Your task to perform on an android device: Check the weather Image 0: 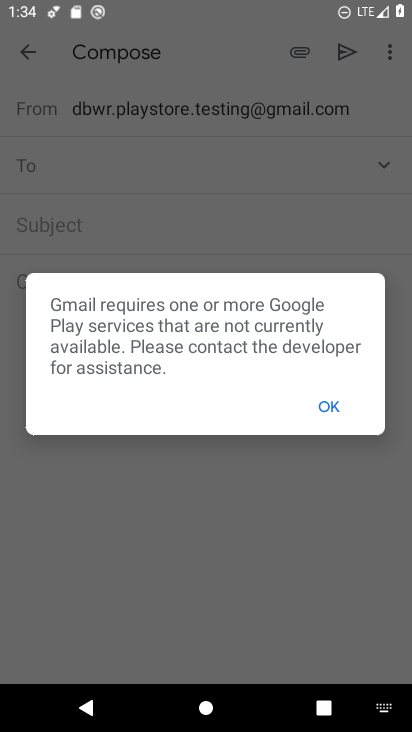
Step 0: press home button
Your task to perform on an android device: Check the weather Image 1: 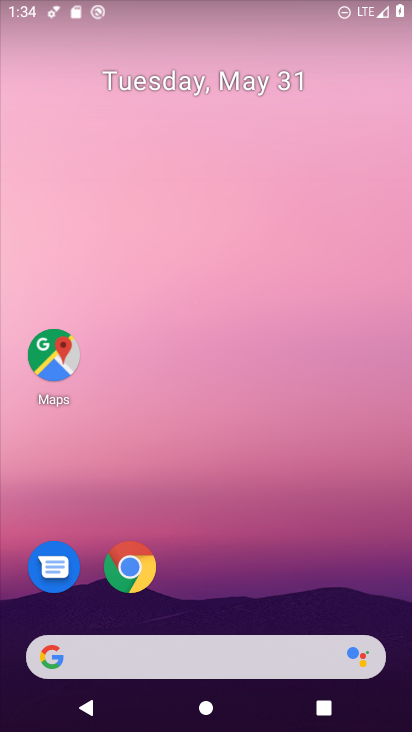
Step 1: drag from (206, 608) to (206, 185)
Your task to perform on an android device: Check the weather Image 2: 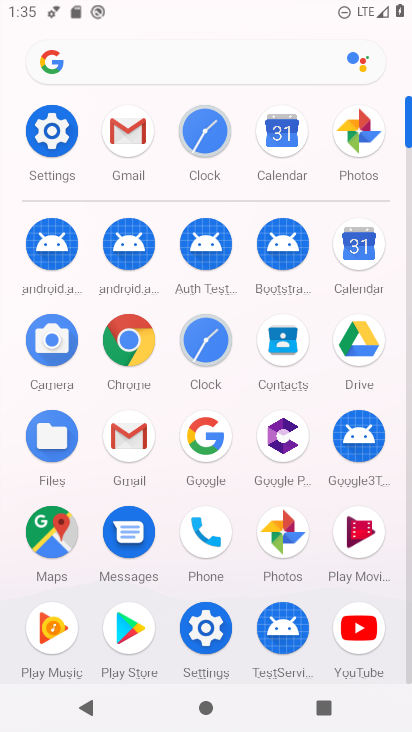
Step 2: click (196, 424)
Your task to perform on an android device: Check the weather Image 3: 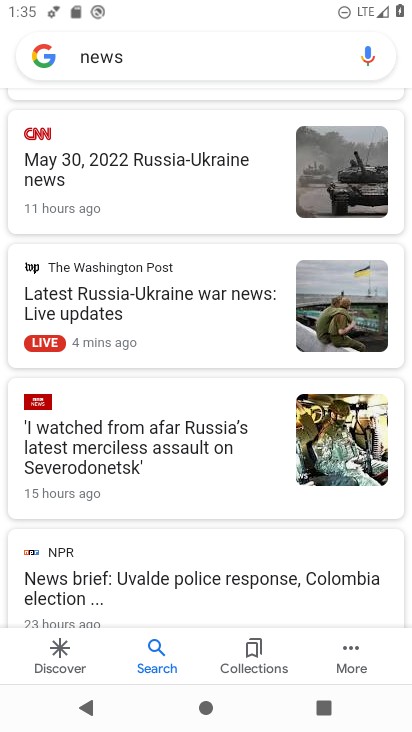
Step 3: click (166, 59)
Your task to perform on an android device: Check the weather Image 4: 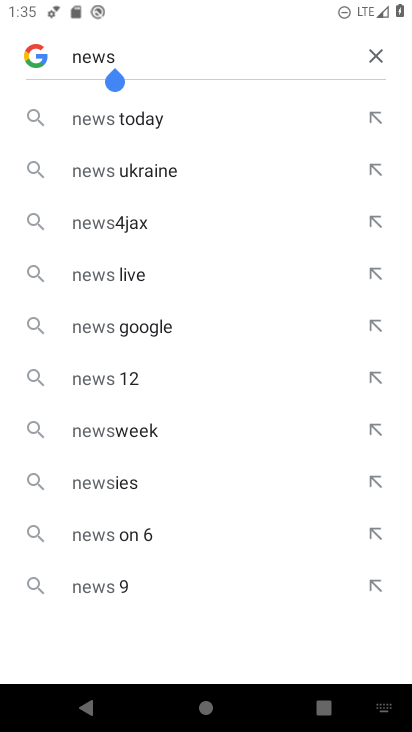
Step 4: click (370, 60)
Your task to perform on an android device: Check the weather Image 5: 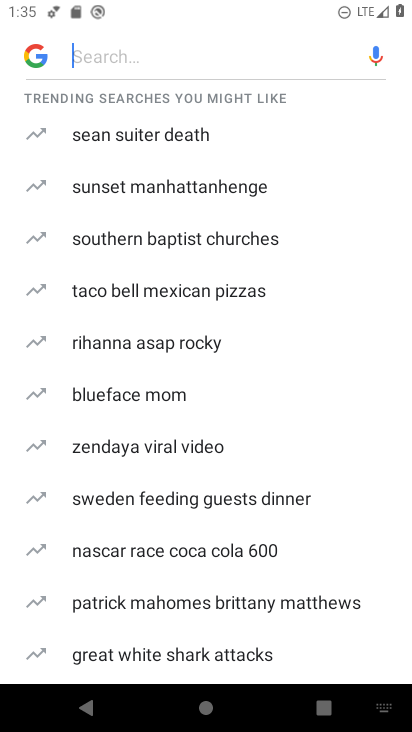
Step 5: click (188, 69)
Your task to perform on an android device: Check the weather Image 6: 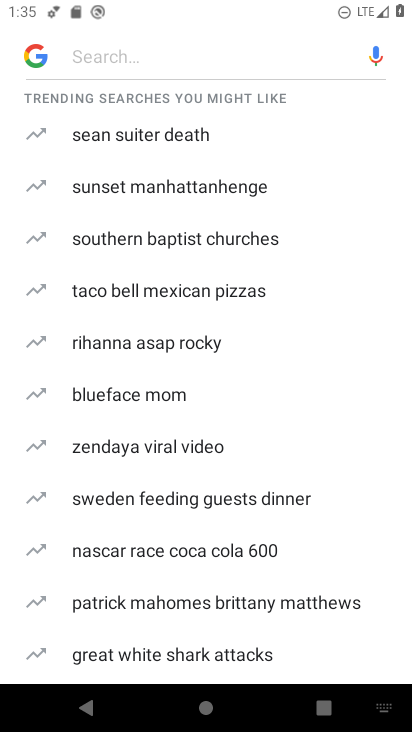
Step 6: type "weather"
Your task to perform on an android device: Check the weather Image 7: 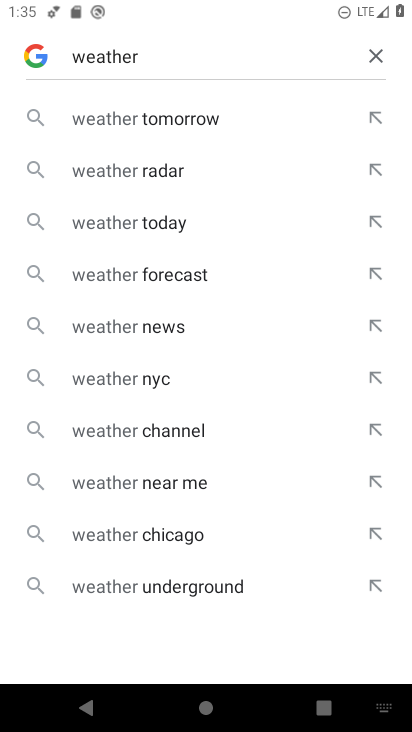
Step 7: click (162, 222)
Your task to perform on an android device: Check the weather Image 8: 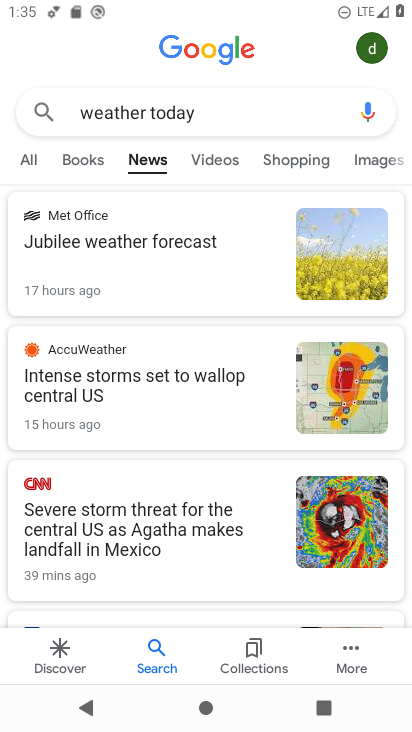
Step 8: click (37, 153)
Your task to perform on an android device: Check the weather Image 9: 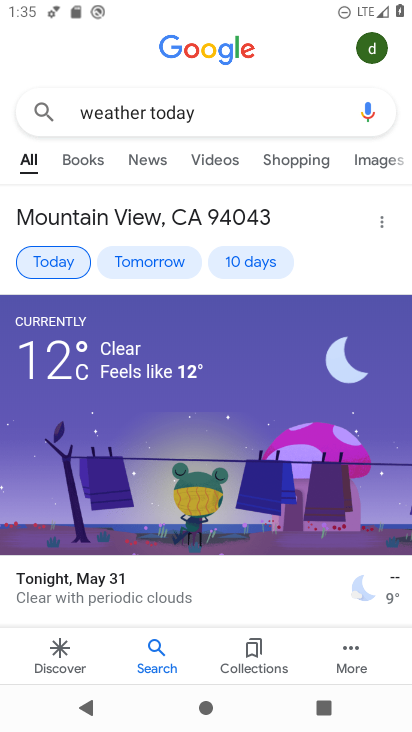
Step 9: task complete